Your task to perform on an android device: turn on location history Image 0: 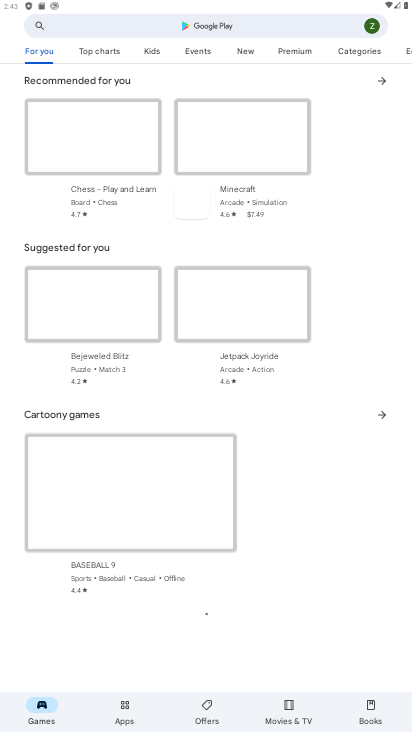
Step 0: press home button
Your task to perform on an android device: turn on location history Image 1: 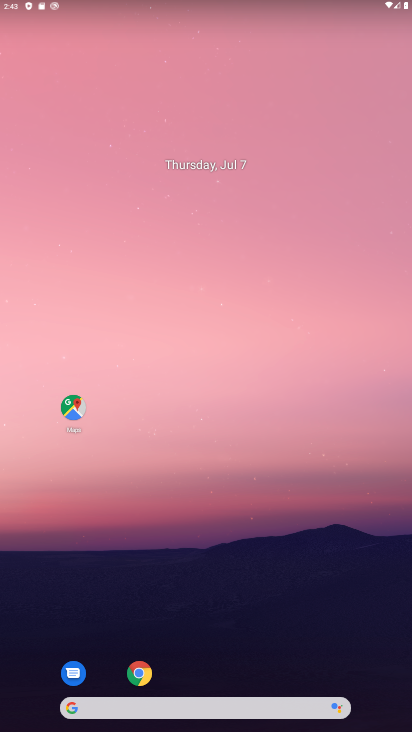
Step 1: drag from (209, 651) to (248, 6)
Your task to perform on an android device: turn on location history Image 2: 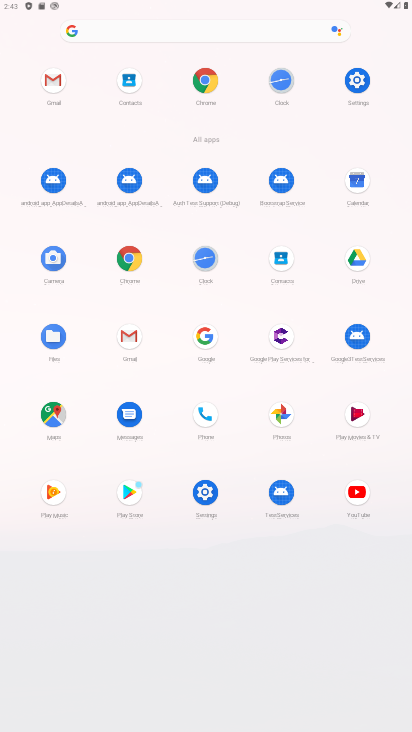
Step 2: click (199, 489)
Your task to perform on an android device: turn on location history Image 3: 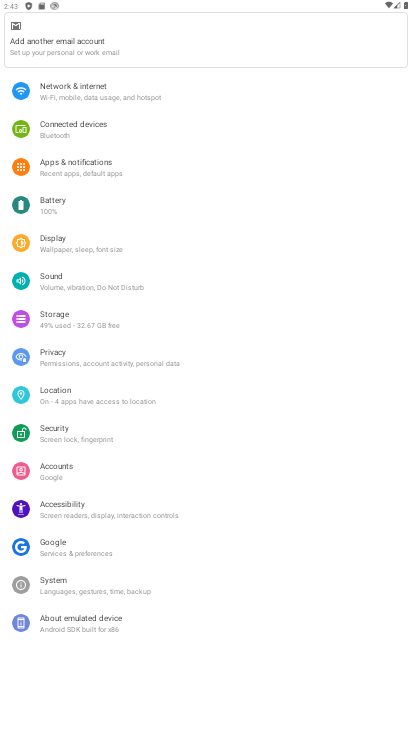
Step 3: click (109, 400)
Your task to perform on an android device: turn on location history Image 4: 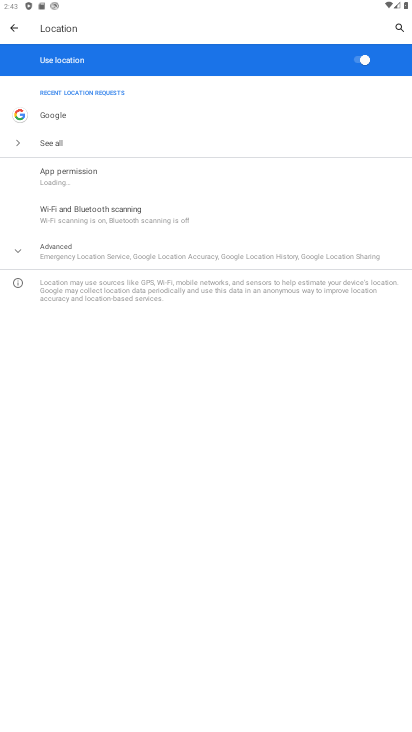
Step 4: click (94, 254)
Your task to perform on an android device: turn on location history Image 5: 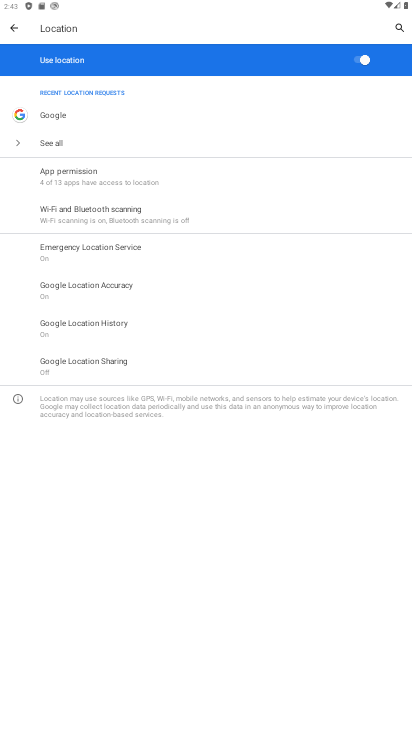
Step 5: click (109, 329)
Your task to perform on an android device: turn on location history Image 6: 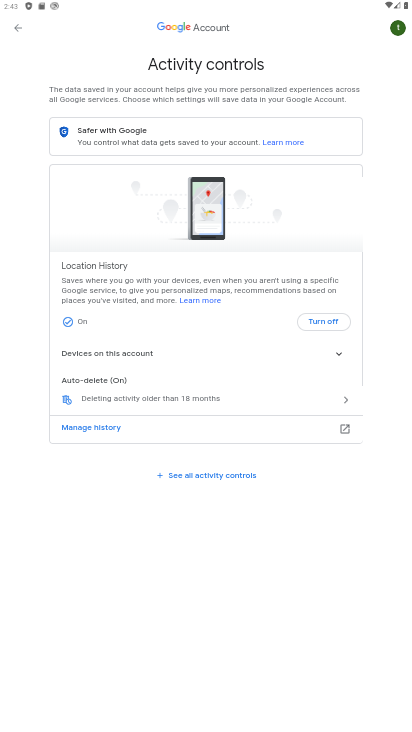
Step 6: task complete